Your task to perform on an android device: Go to internet settings Image 0: 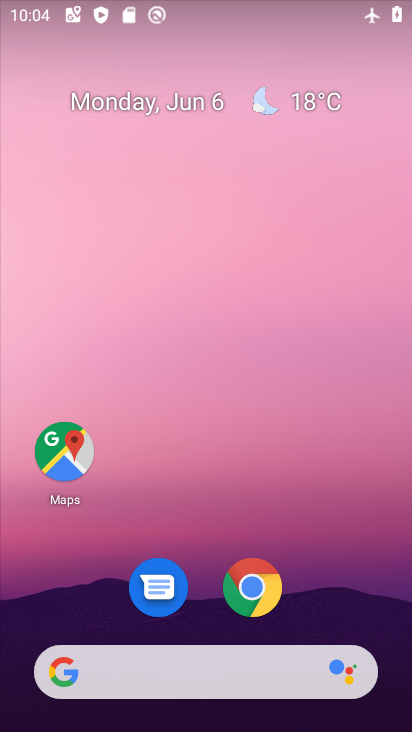
Step 0: drag from (329, 500) to (325, 64)
Your task to perform on an android device: Go to internet settings Image 1: 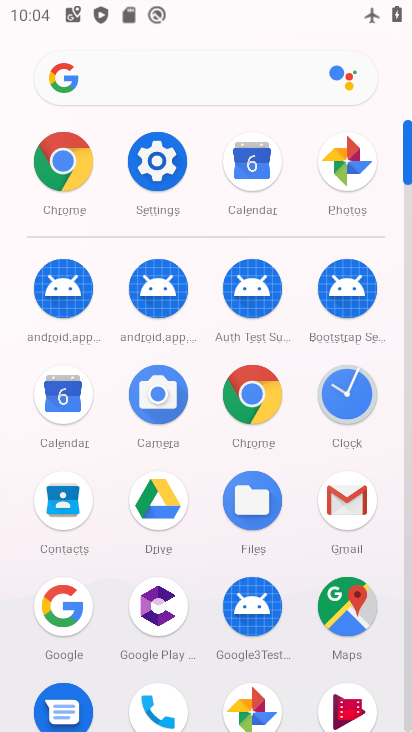
Step 1: click (167, 168)
Your task to perform on an android device: Go to internet settings Image 2: 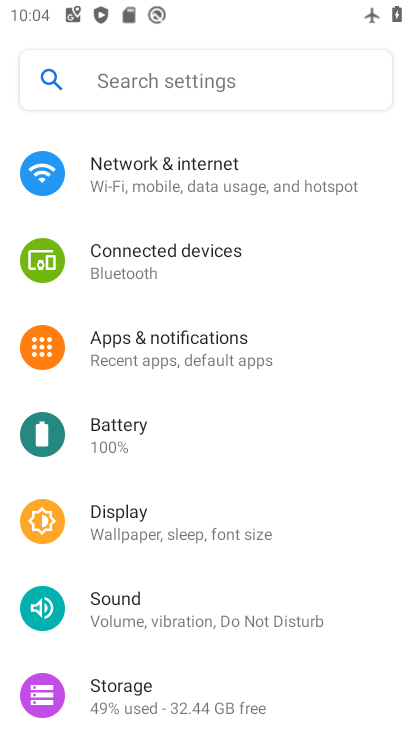
Step 2: click (164, 176)
Your task to perform on an android device: Go to internet settings Image 3: 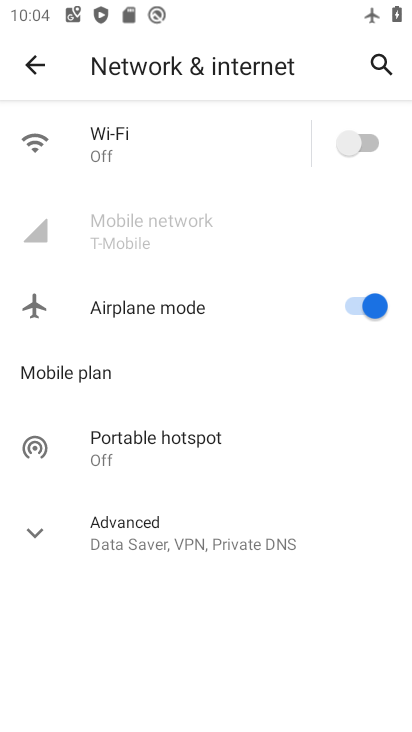
Step 3: task complete